Your task to perform on an android device: Open CNN.com Image 0: 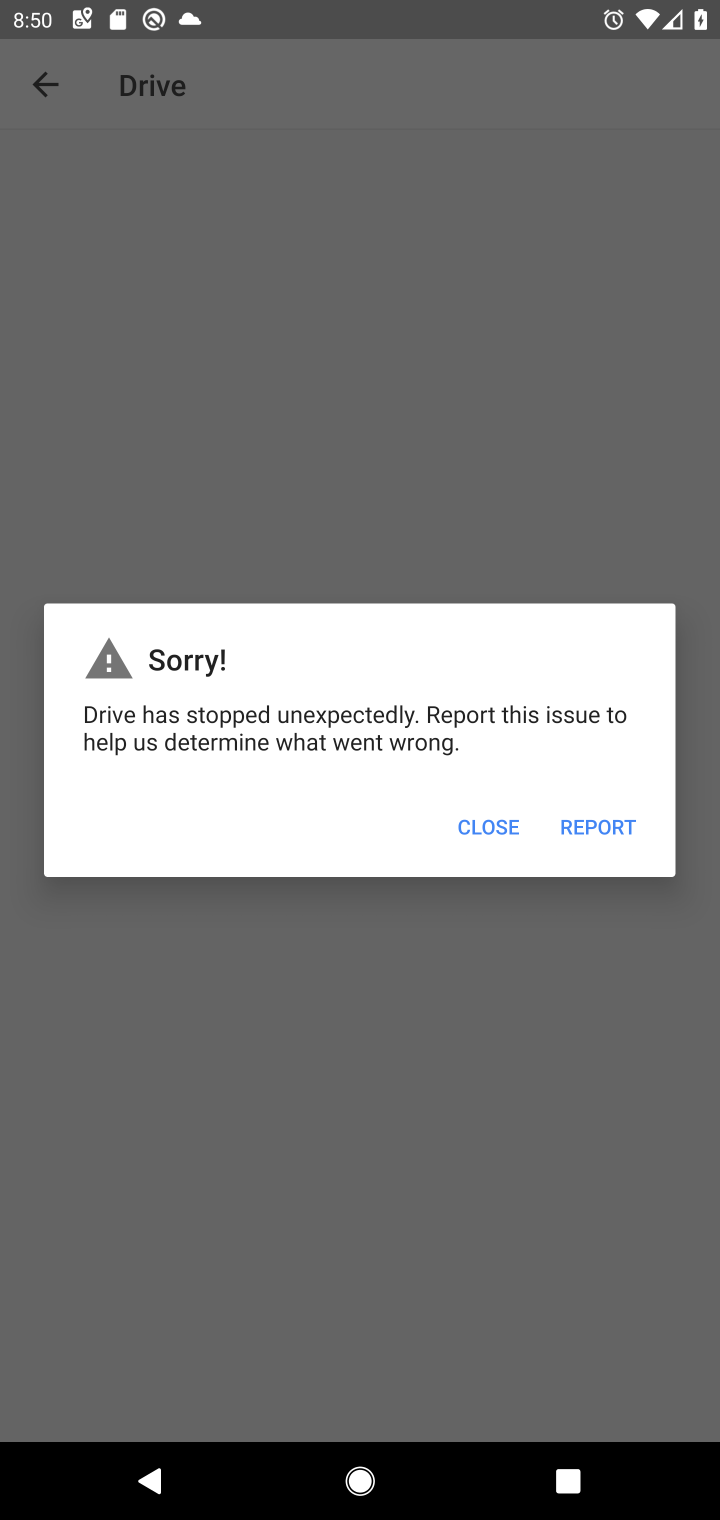
Step 0: press home button
Your task to perform on an android device: Open CNN.com Image 1: 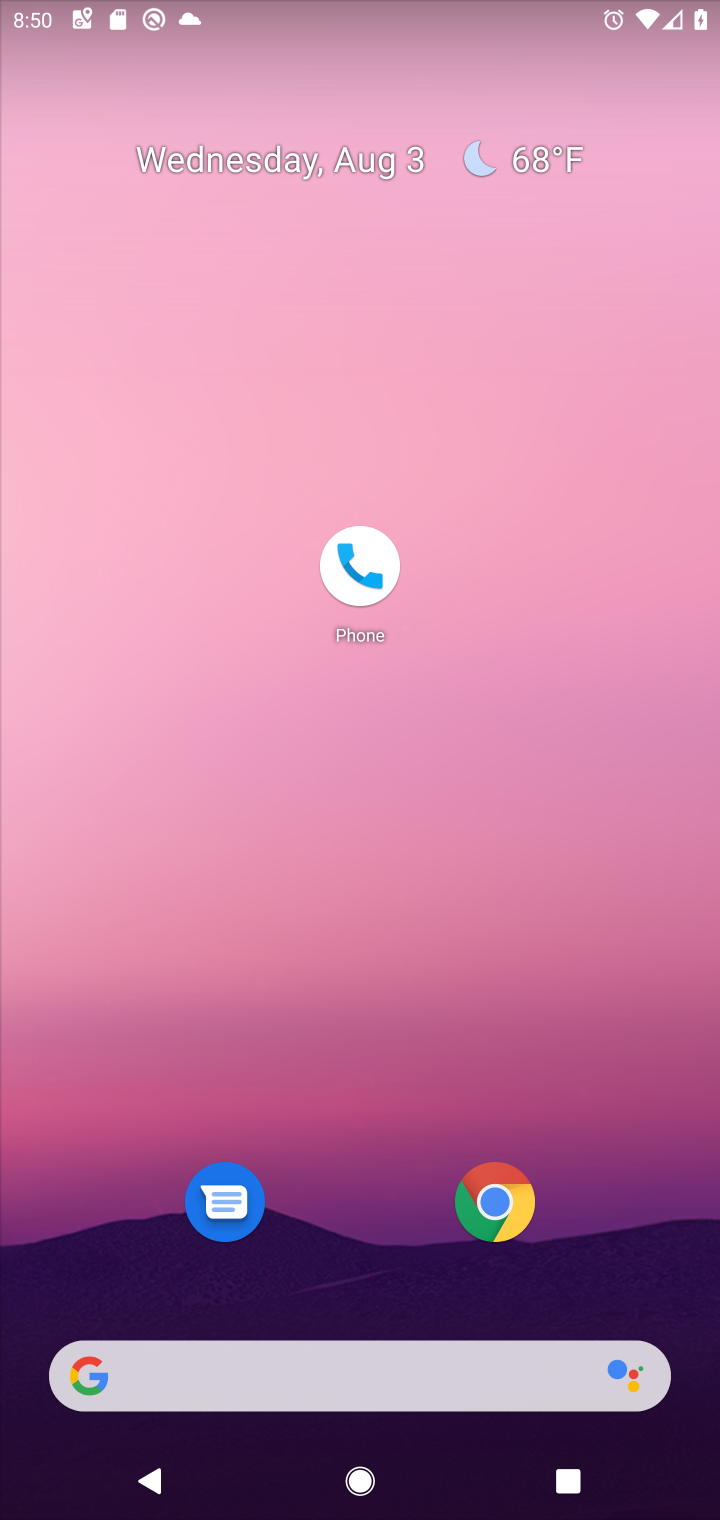
Step 1: click (495, 1208)
Your task to perform on an android device: Open CNN.com Image 2: 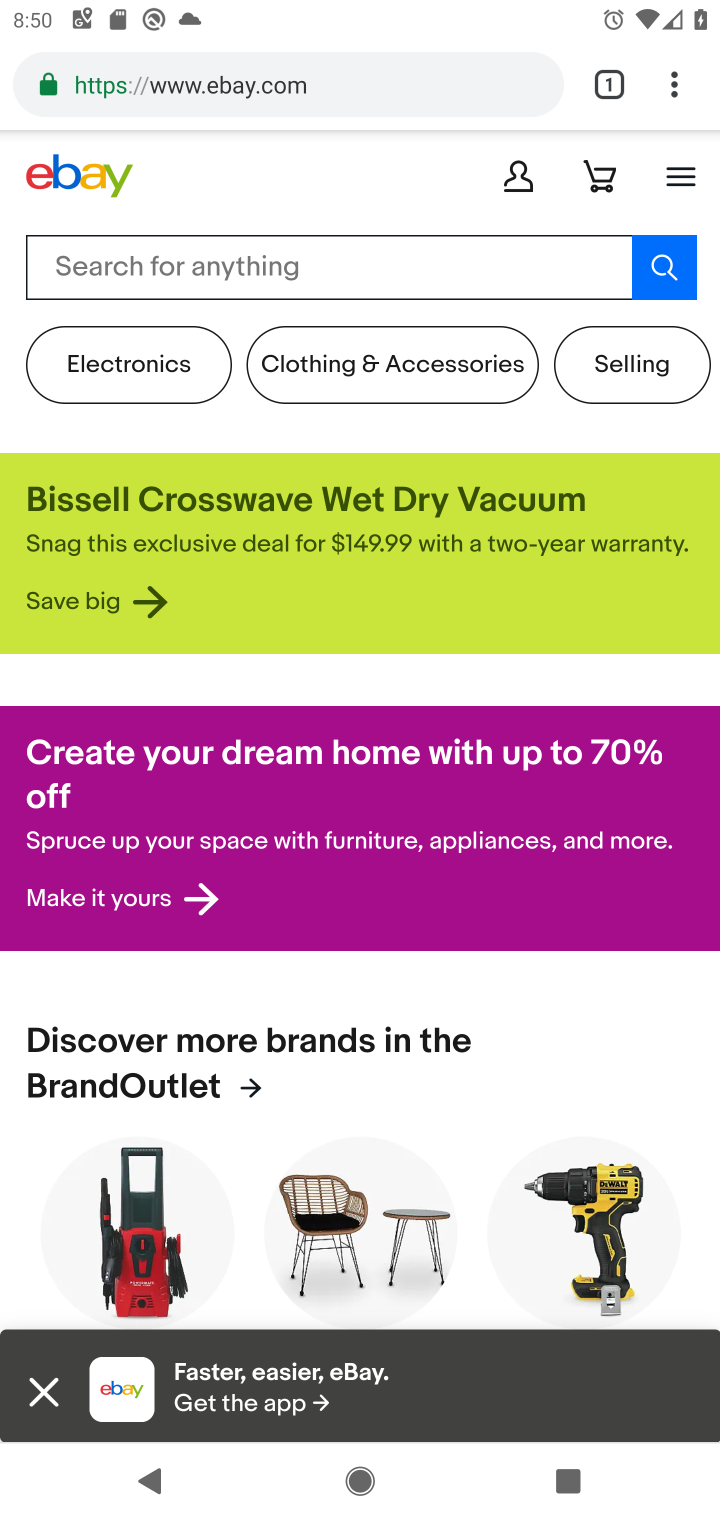
Step 2: click (411, 97)
Your task to perform on an android device: Open CNN.com Image 3: 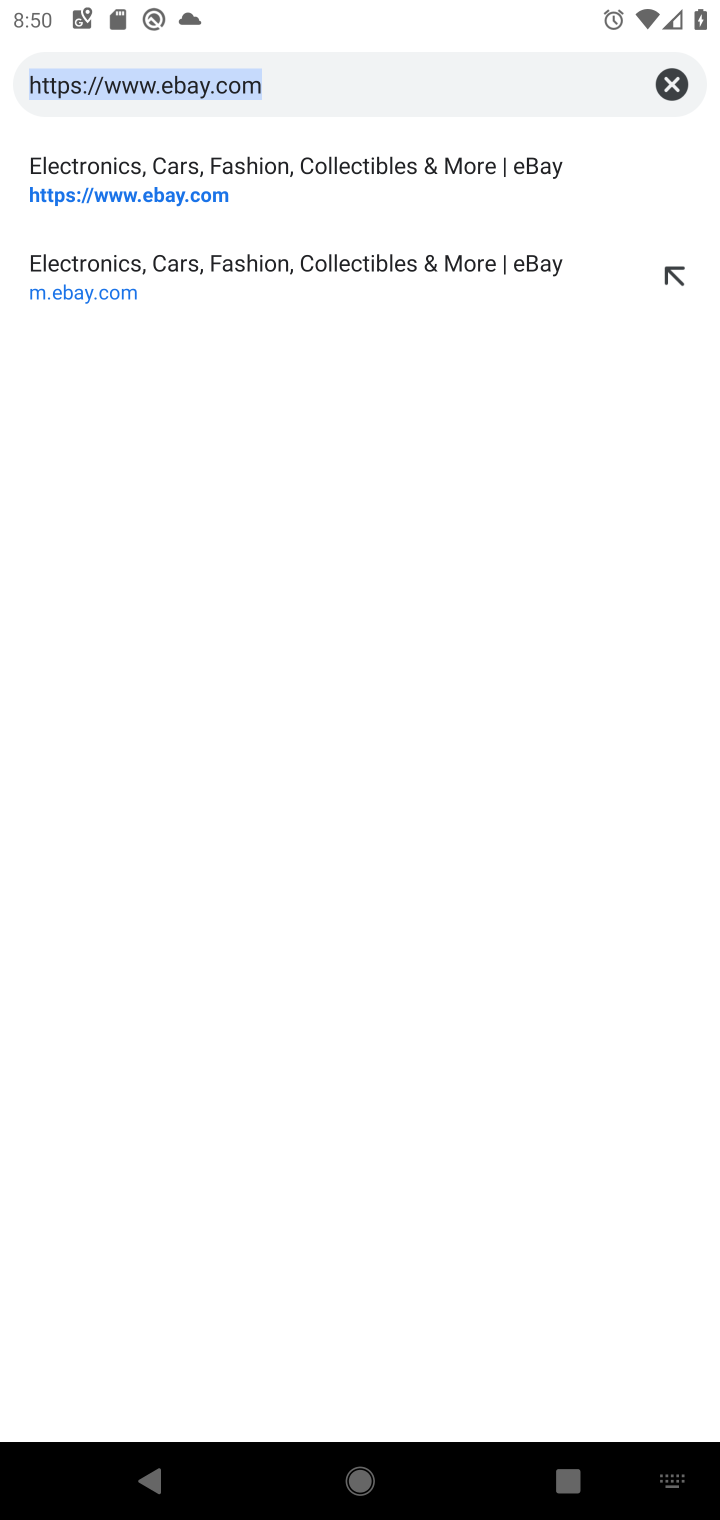
Step 3: click (663, 84)
Your task to perform on an android device: Open CNN.com Image 4: 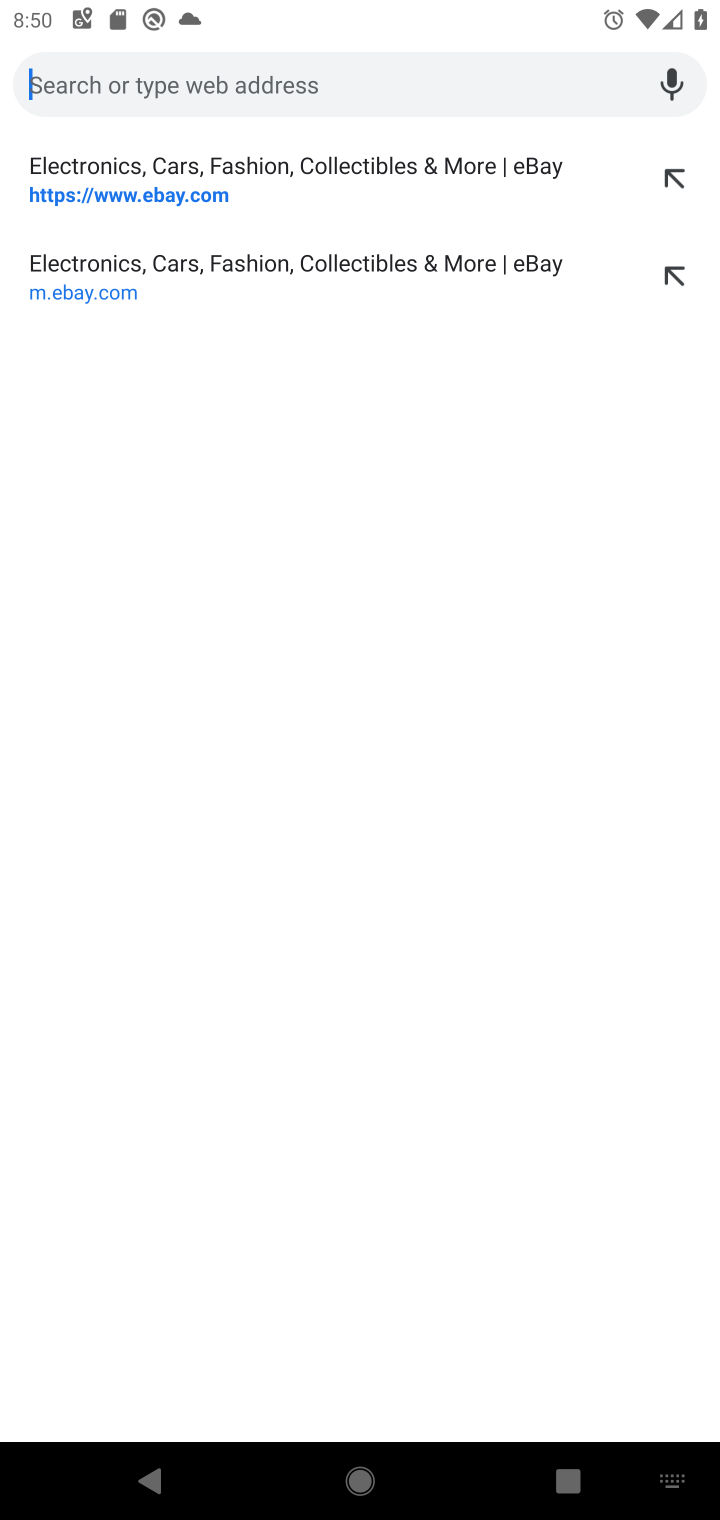
Step 4: type "CNN.com"
Your task to perform on an android device: Open CNN.com Image 5: 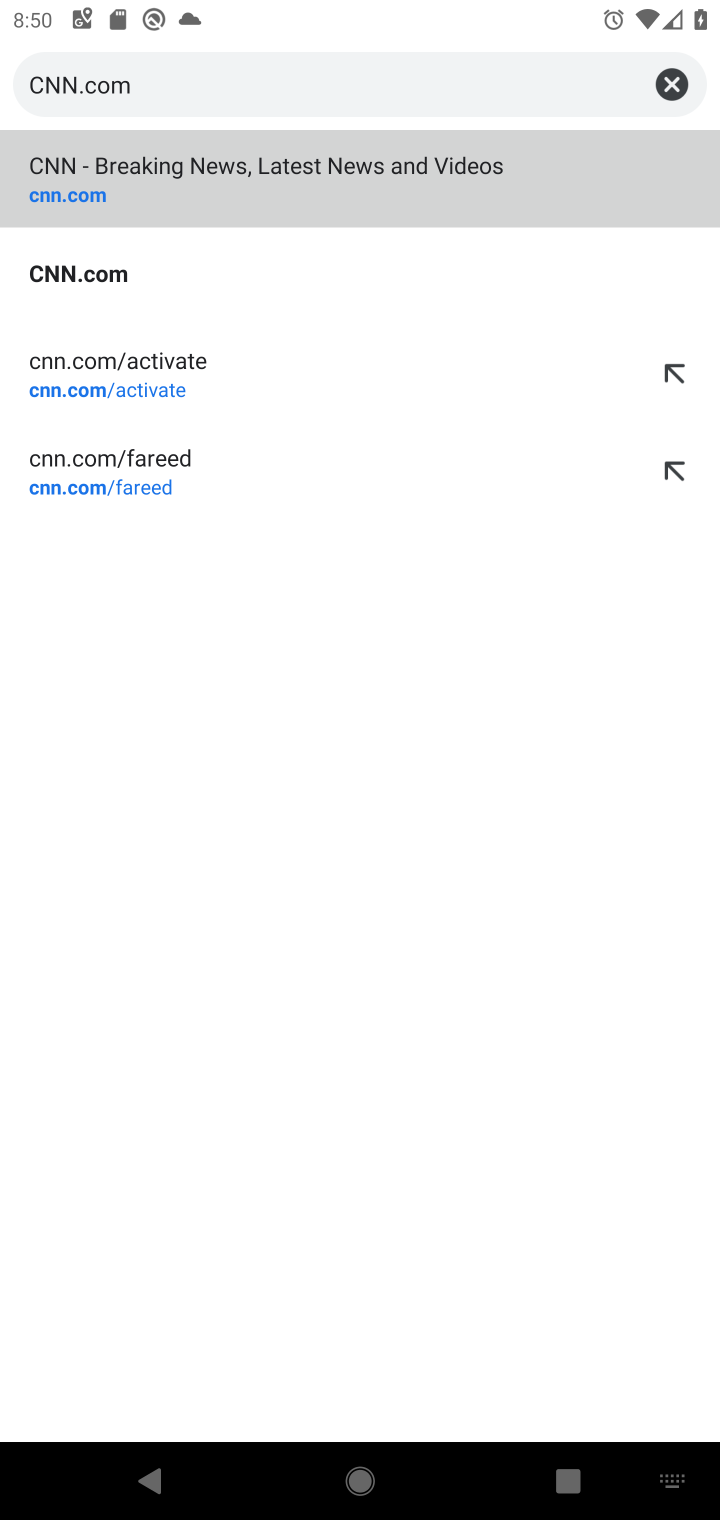
Step 5: click (107, 280)
Your task to perform on an android device: Open CNN.com Image 6: 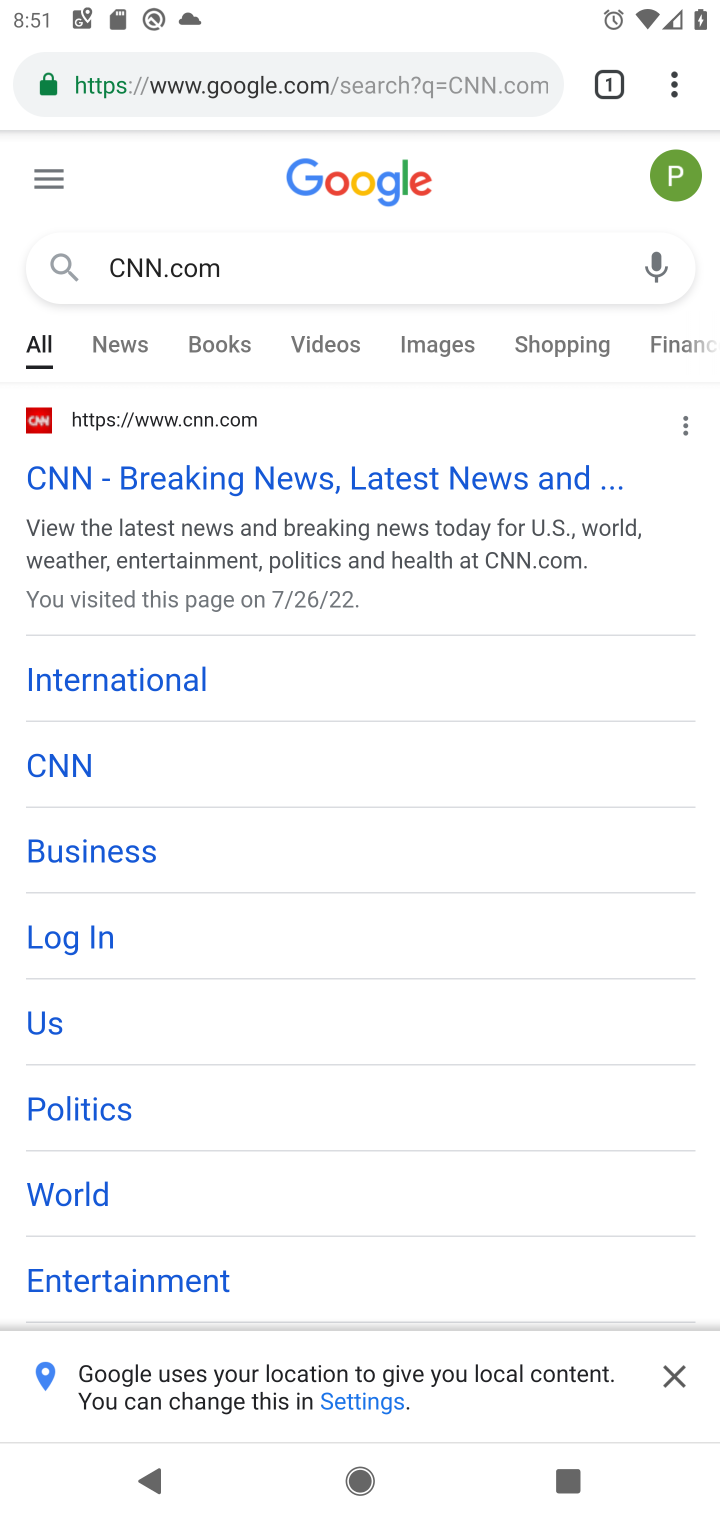
Step 6: click (211, 481)
Your task to perform on an android device: Open CNN.com Image 7: 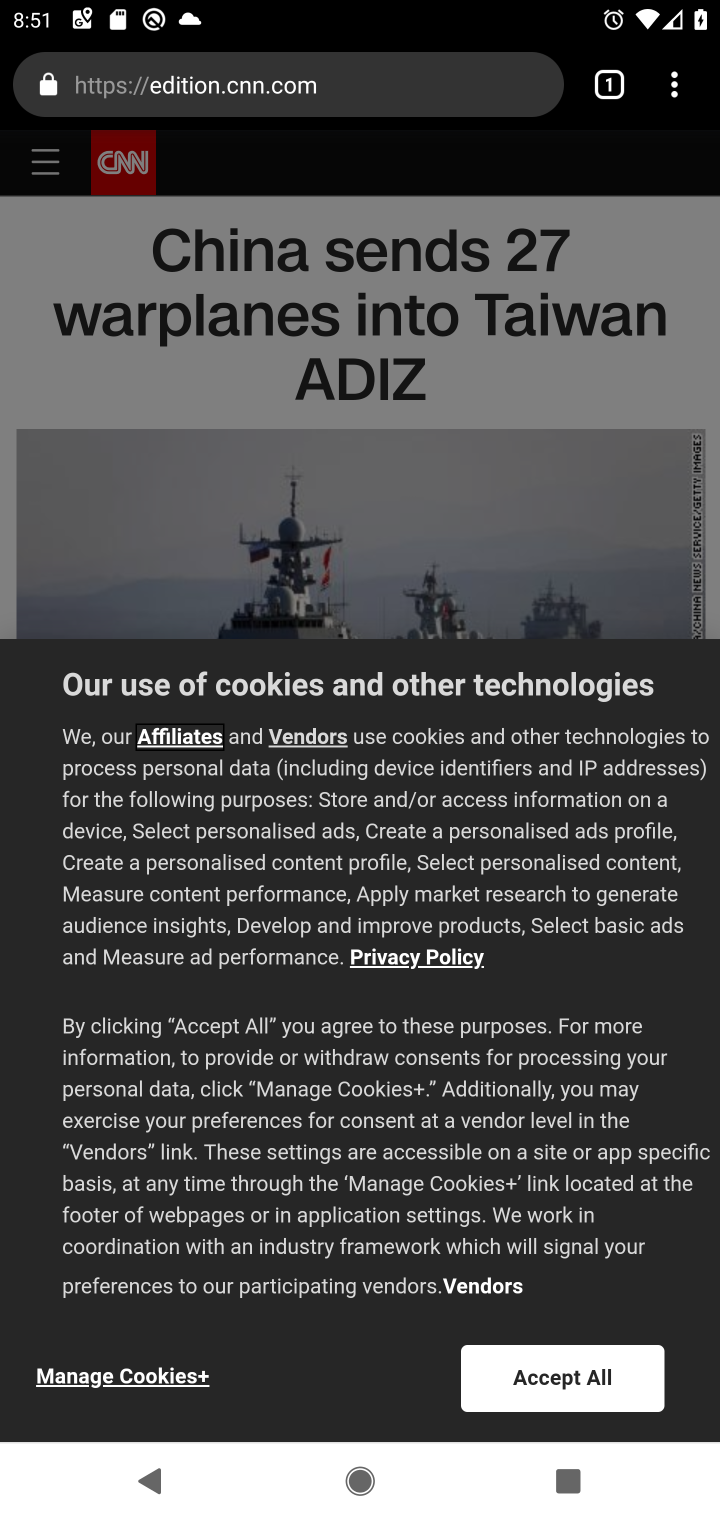
Step 7: task complete